Your task to perform on an android device: Open eBay Image 0: 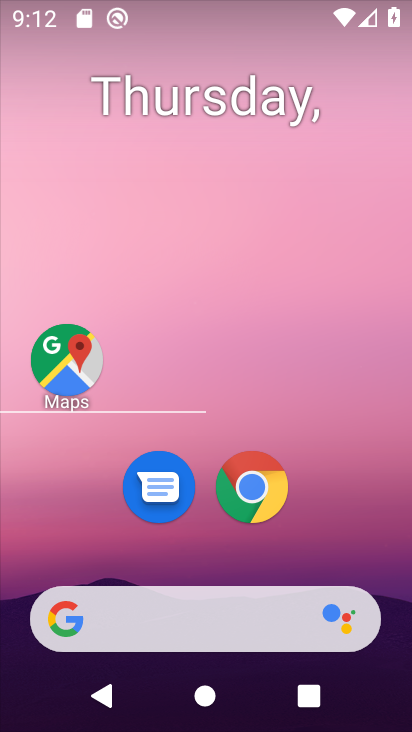
Step 0: drag from (349, 532) to (266, 144)
Your task to perform on an android device: Open eBay Image 1: 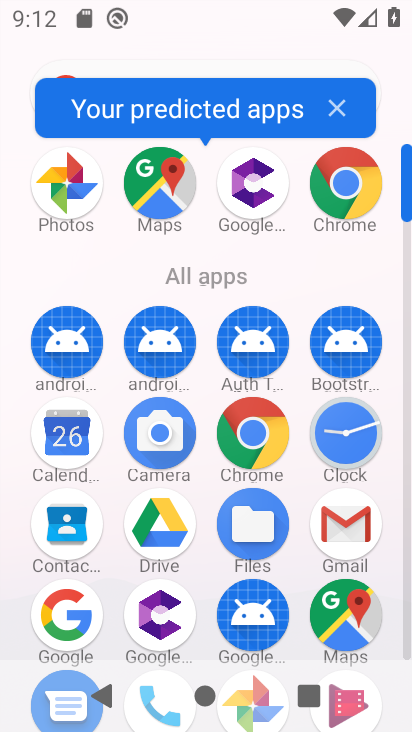
Step 1: click (339, 180)
Your task to perform on an android device: Open eBay Image 2: 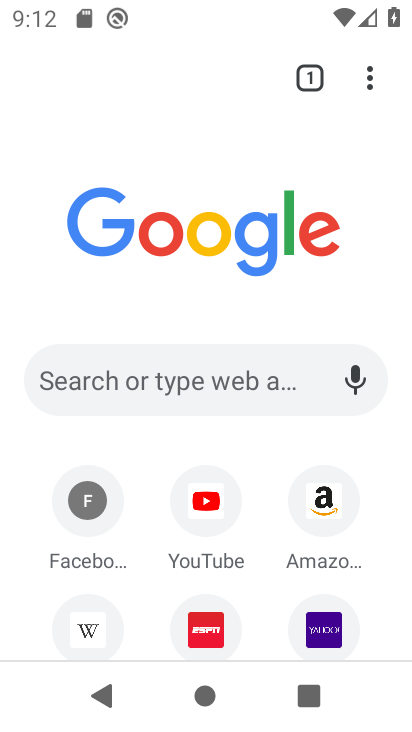
Step 2: click (215, 368)
Your task to perform on an android device: Open eBay Image 3: 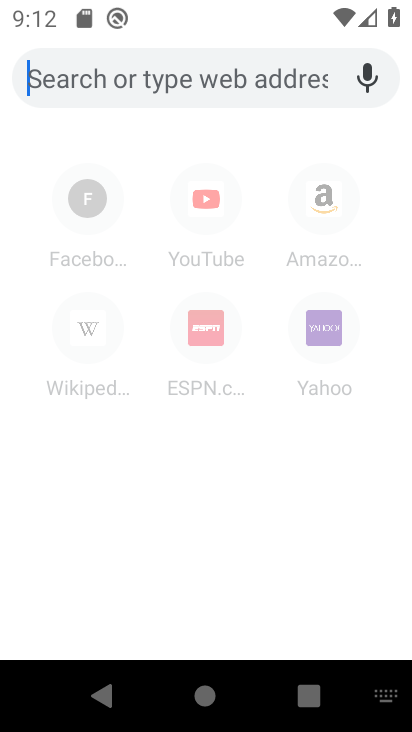
Step 3: type "ebay"
Your task to perform on an android device: Open eBay Image 4: 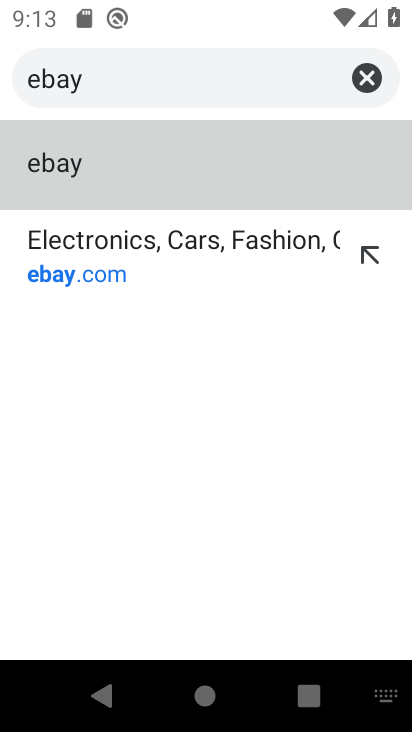
Step 4: click (56, 166)
Your task to perform on an android device: Open eBay Image 5: 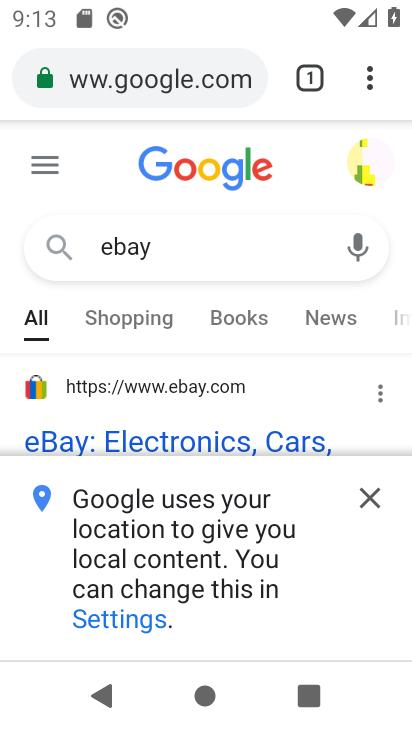
Step 5: task complete